Your task to perform on an android device: set the timer Image 0: 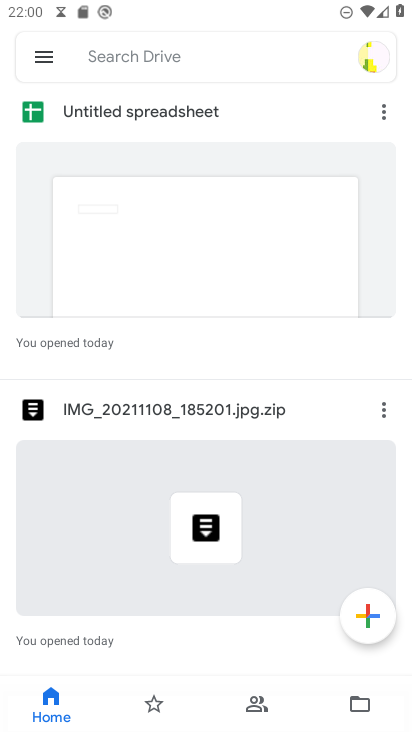
Step 0: click (375, 57)
Your task to perform on an android device: set the timer Image 1: 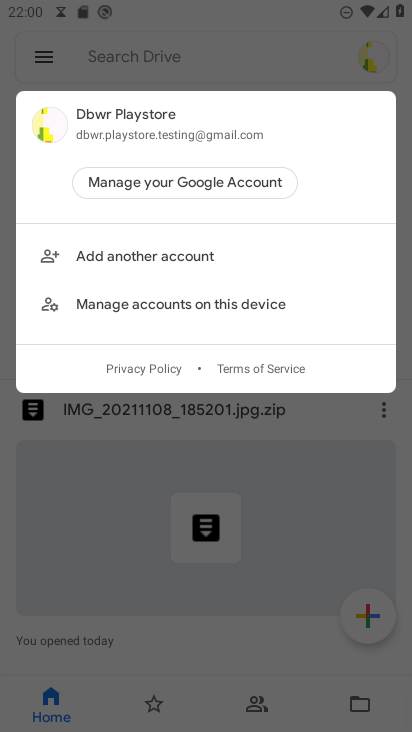
Step 1: press home button
Your task to perform on an android device: set the timer Image 2: 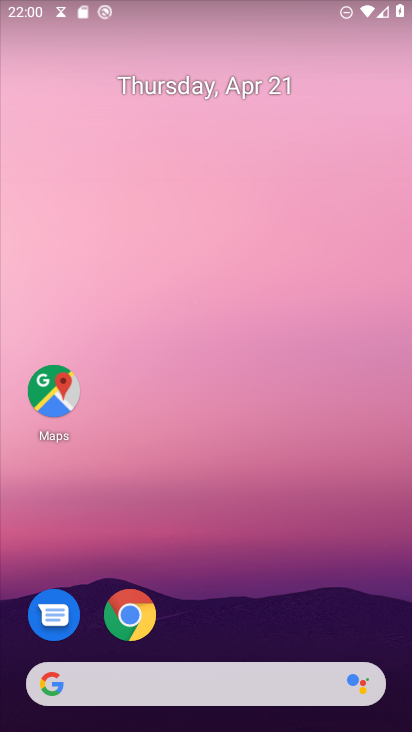
Step 2: drag from (216, 632) to (154, 116)
Your task to perform on an android device: set the timer Image 3: 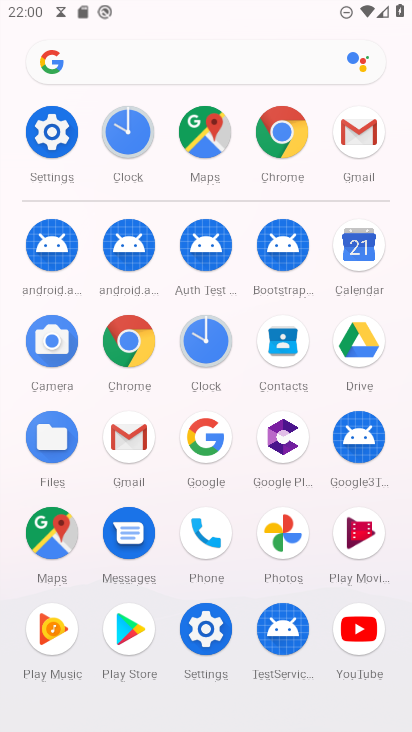
Step 3: click (211, 340)
Your task to perform on an android device: set the timer Image 4: 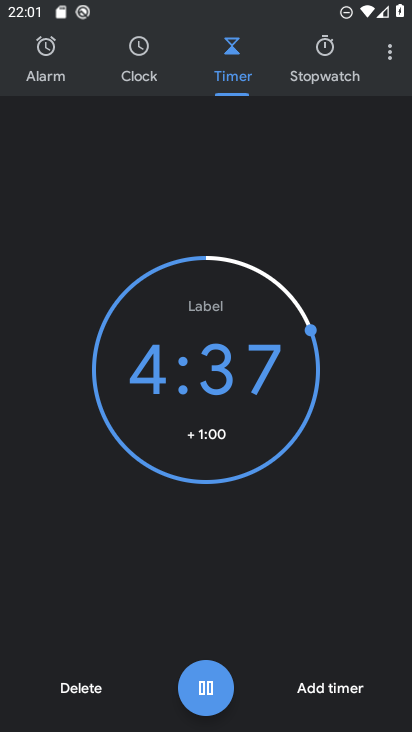
Step 4: click (82, 684)
Your task to perform on an android device: set the timer Image 5: 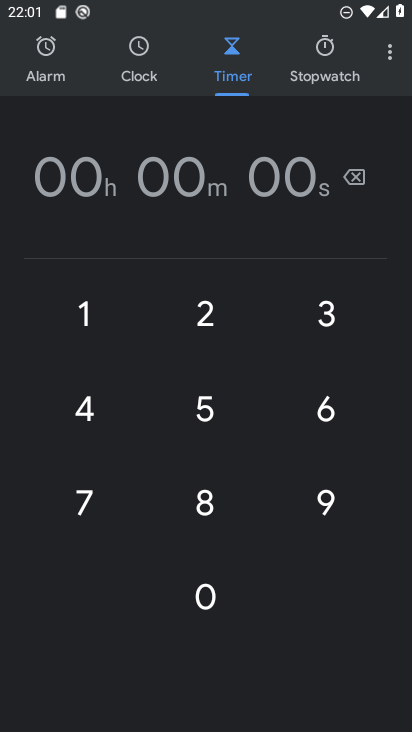
Step 5: click (208, 591)
Your task to perform on an android device: set the timer Image 6: 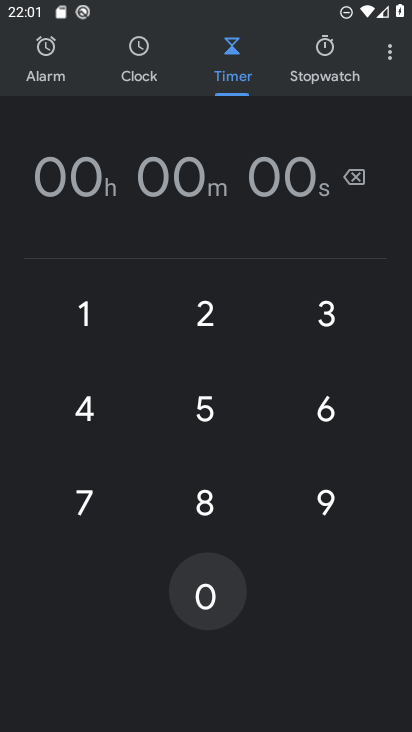
Step 6: click (220, 510)
Your task to perform on an android device: set the timer Image 7: 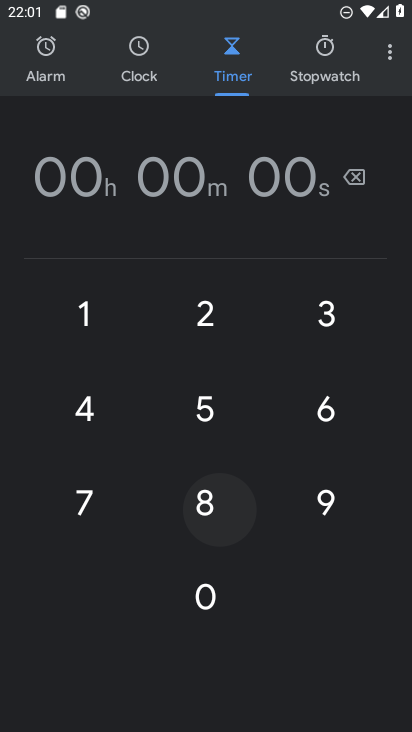
Step 7: click (386, 488)
Your task to perform on an android device: set the timer Image 8: 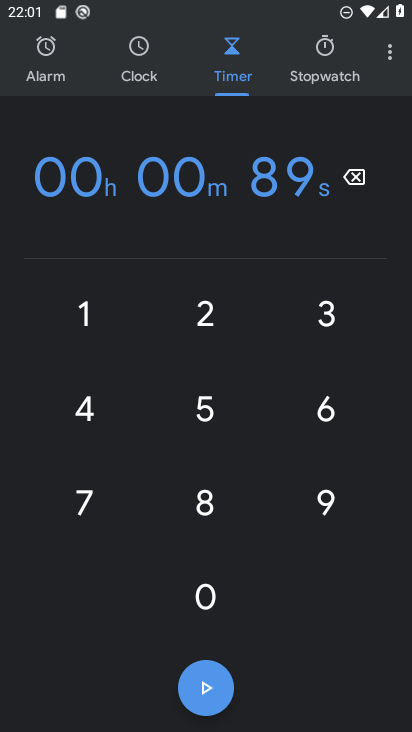
Step 8: click (219, 670)
Your task to perform on an android device: set the timer Image 9: 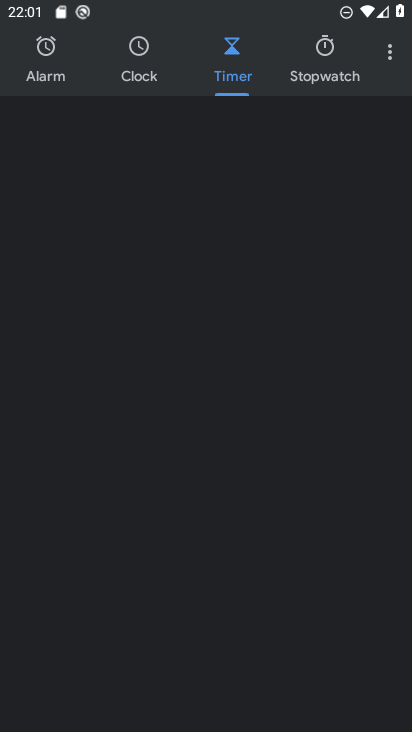
Step 9: task complete